Your task to perform on an android device: star an email in the gmail app Image 0: 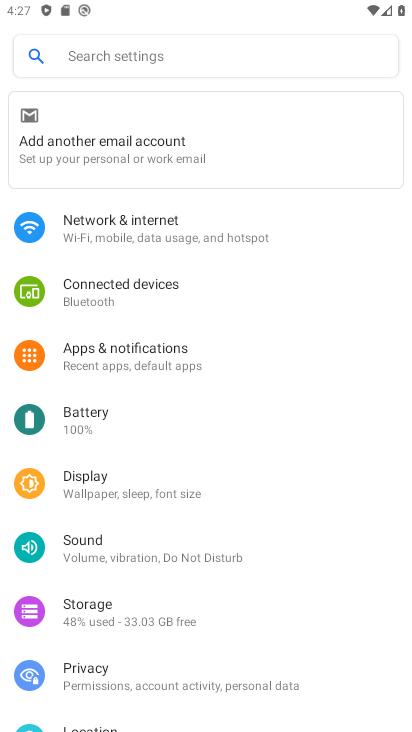
Step 0: press home button
Your task to perform on an android device: star an email in the gmail app Image 1: 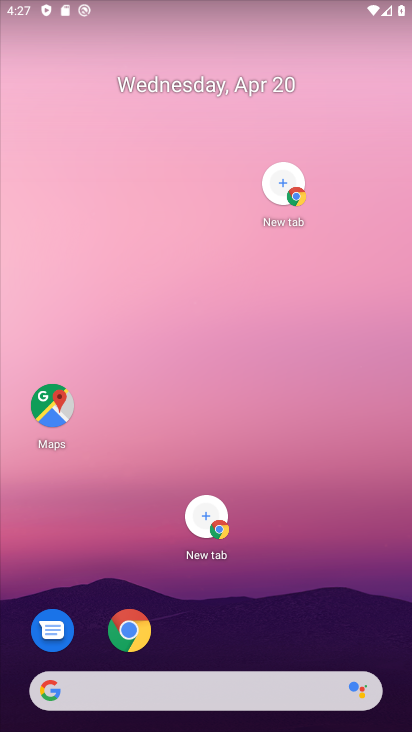
Step 1: drag from (201, 554) to (137, 140)
Your task to perform on an android device: star an email in the gmail app Image 2: 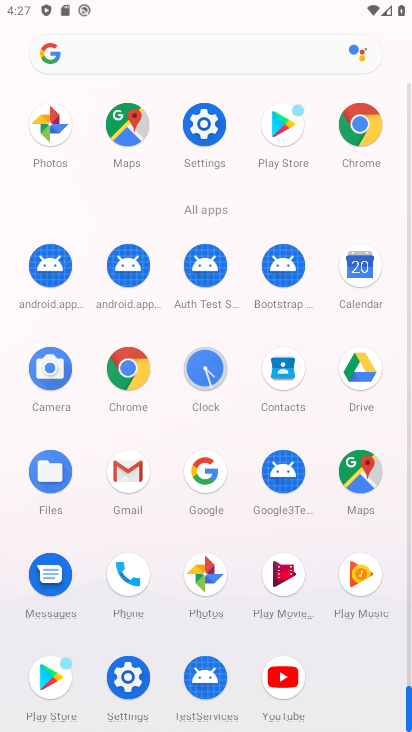
Step 2: click (118, 478)
Your task to perform on an android device: star an email in the gmail app Image 3: 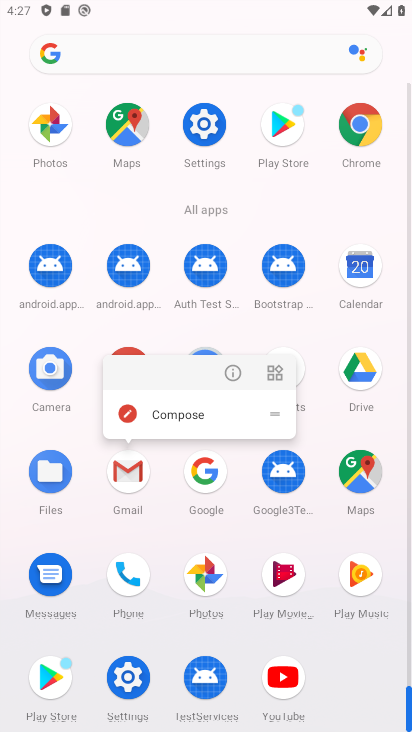
Step 3: drag from (118, 478) to (136, 437)
Your task to perform on an android device: star an email in the gmail app Image 4: 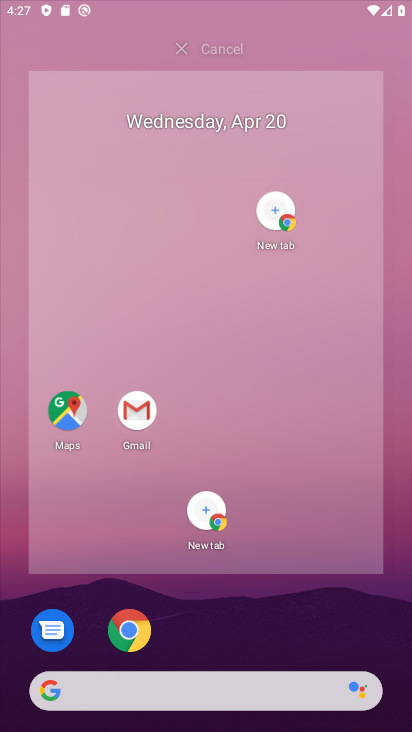
Step 4: drag from (131, 184) to (109, 84)
Your task to perform on an android device: star an email in the gmail app Image 5: 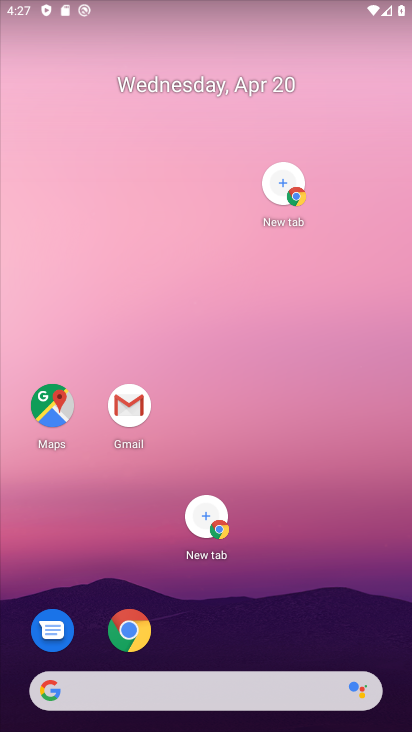
Step 5: click (166, 164)
Your task to perform on an android device: star an email in the gmail app Image 6: 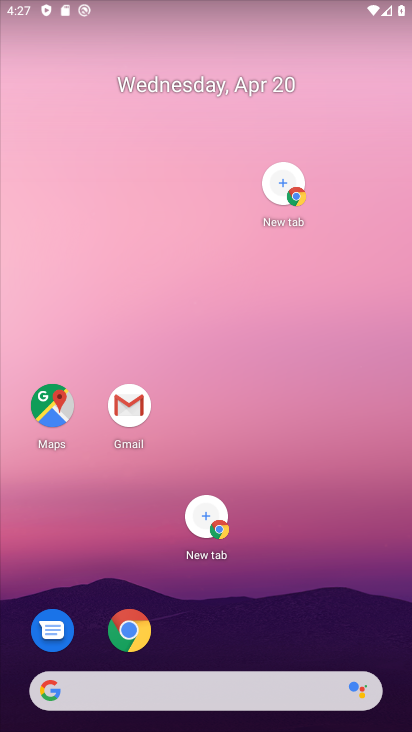
Step 6: drag from (176, 501) to (146, 17)
Your task to perform on an android device: star an email in the gmail app Image 7: 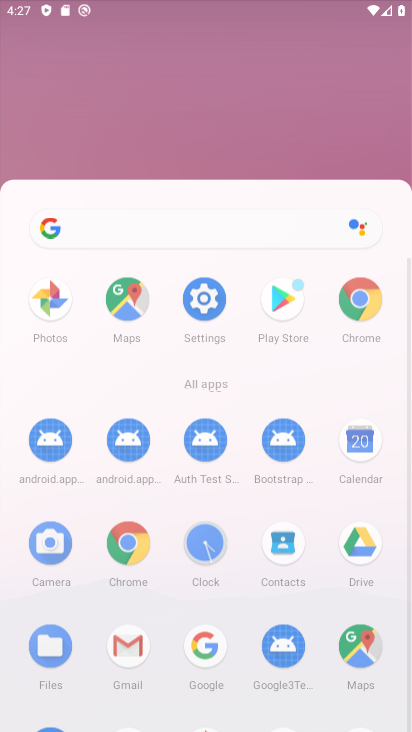
Step 7: drag from (114, 262) to (85, 78)
Your task to perform on an android device: star an email in the gmail app Image 8: 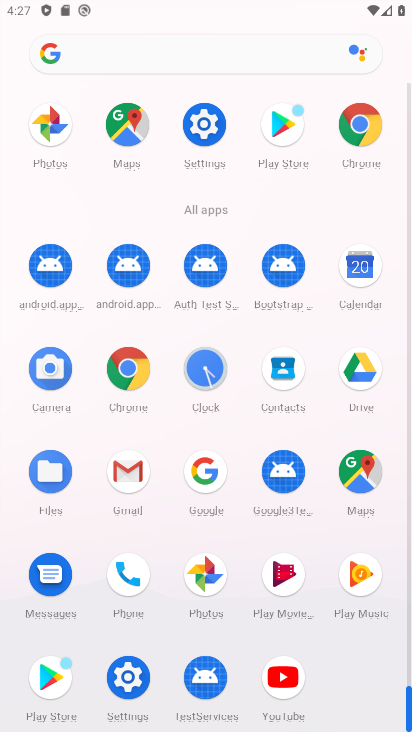
Step 8: click (122, 469)
Your task to perform on an android device: star an email in the gmail app Image 9: 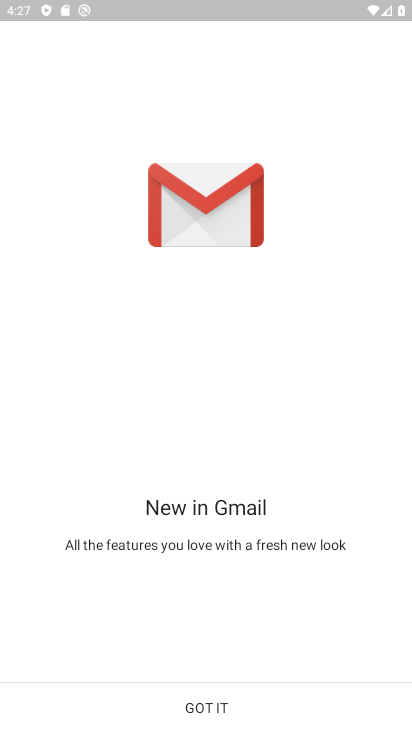
Step 9: click (209, 697)
Your task to perform on an android device: star an email in the gmail app Image 10: 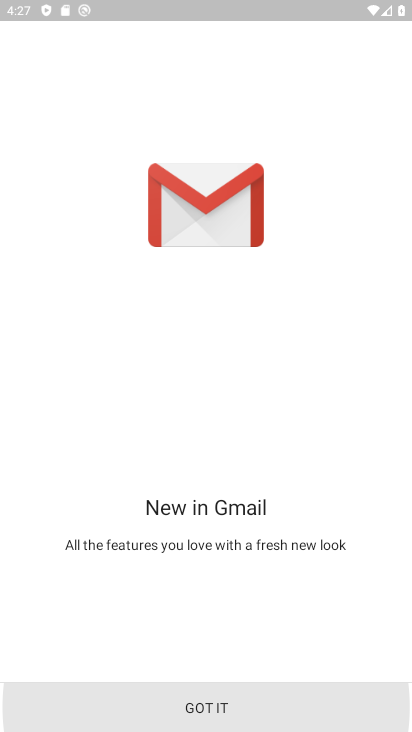
Step 10: click (209, 697)
Your task to perform on an android device: star an email in the gmail app Image 11: 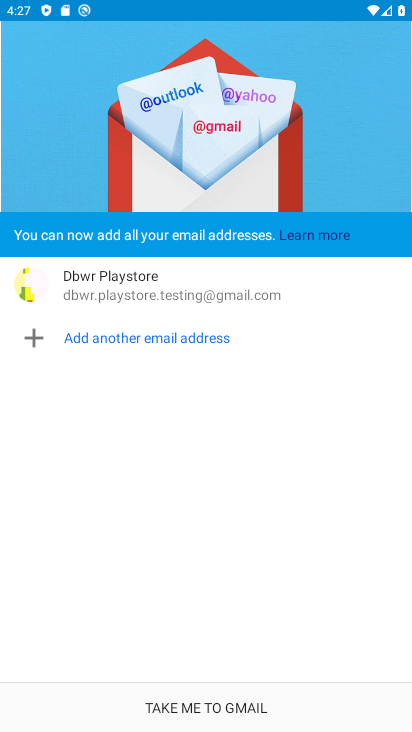
Step 11: click (214, 704)
Your task to perform on an android device: star an email in the gmail app Image 12: 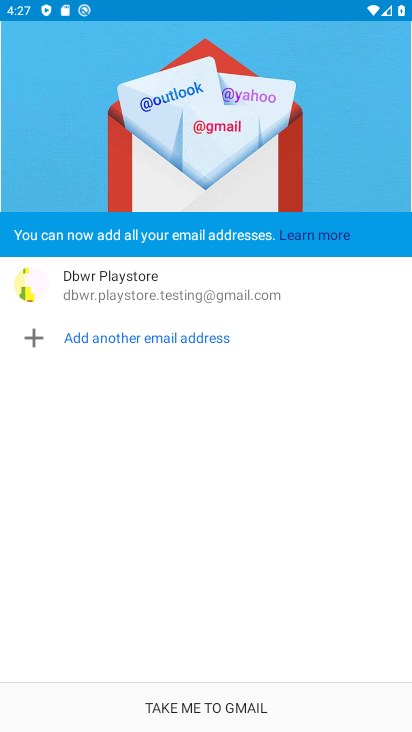
Step 12: click (211, 701)
Your task to perform on an android device: star an email in the gmail app Image 13: 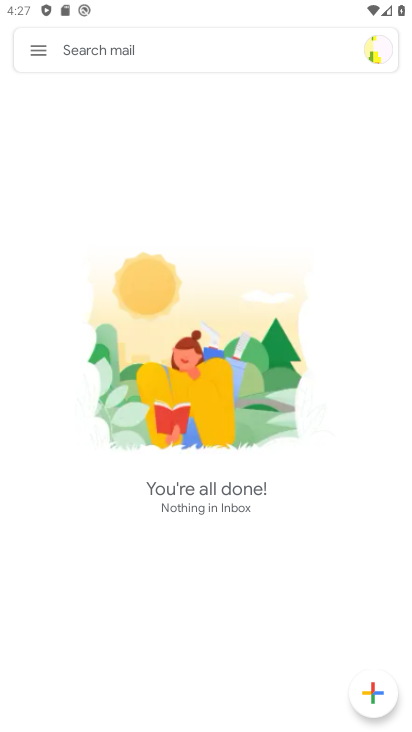
Step 13: click (35, 50)
Your task to perform on an android device: star an email in the gmail app Image 14: 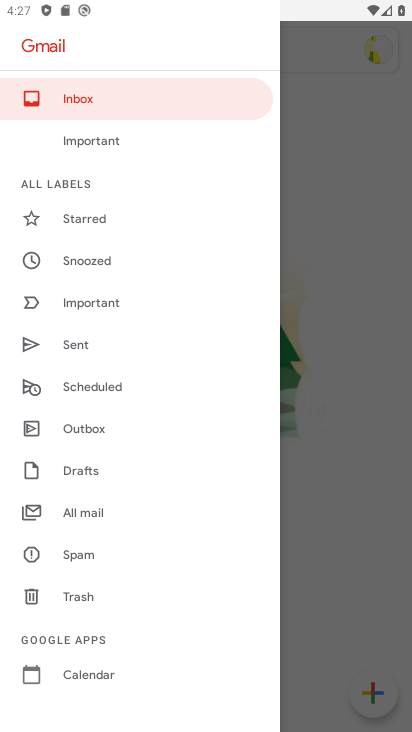
Step 14: click (66, 510)
Your task to perform on an android device: star an email in the gmail app Image 15: 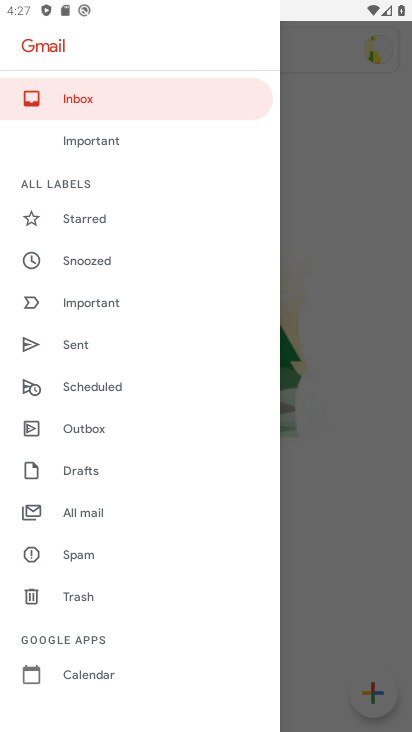
Step 15: click (70, 506)
Your task to perform on an android device: star an email in the gmail app Image 16: 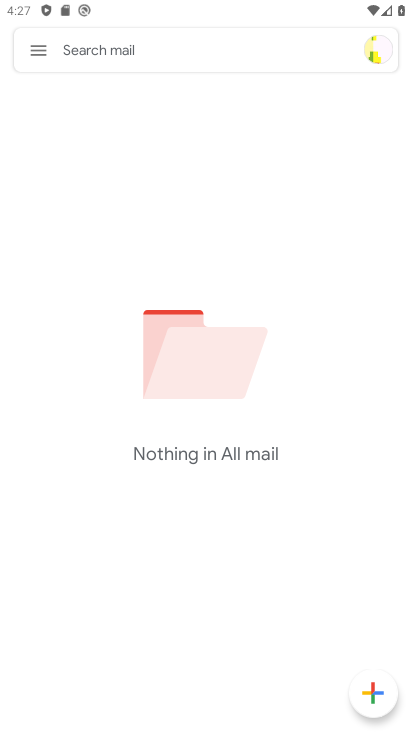
Step 16: task complete